Your task to perform on an android device: Go to privacy settings Image 0: 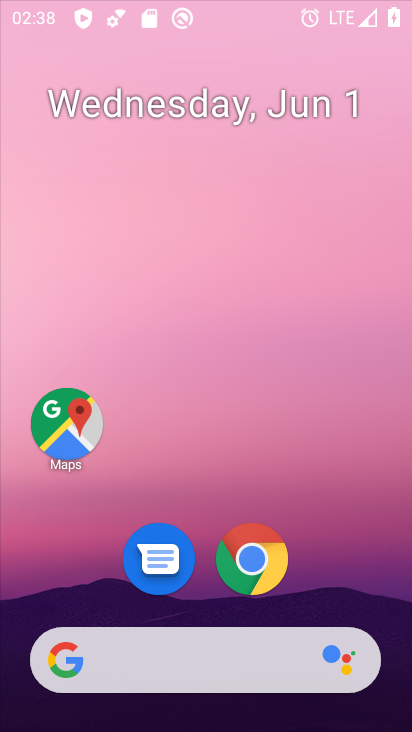
Step 0: press home button
Your task to perform on an android device: Go to privacy settings Image 1: 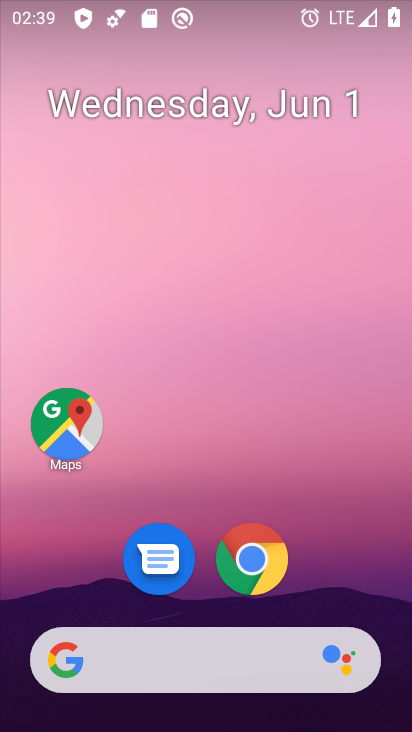
Step 1: drag from (334, 618) to (335, 139)
Your task to perform on an android device: Go to privacy settings Image 2: 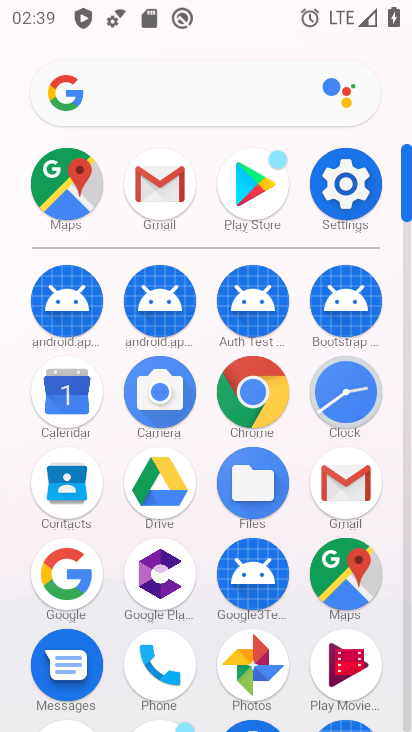
Step 2: click (344, 174)
Your task to perform on an android device: Go to privacy settings Image 3: 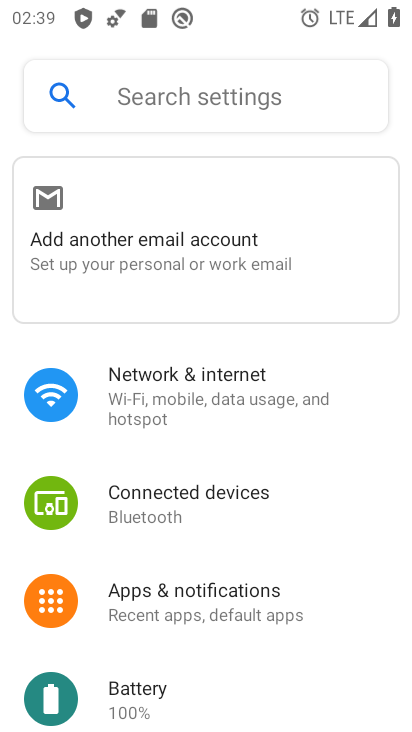
Step 3: drag from (232, 650) to (237, 434)
Your task to perform on an android device: Go to privacy settings Image 4: 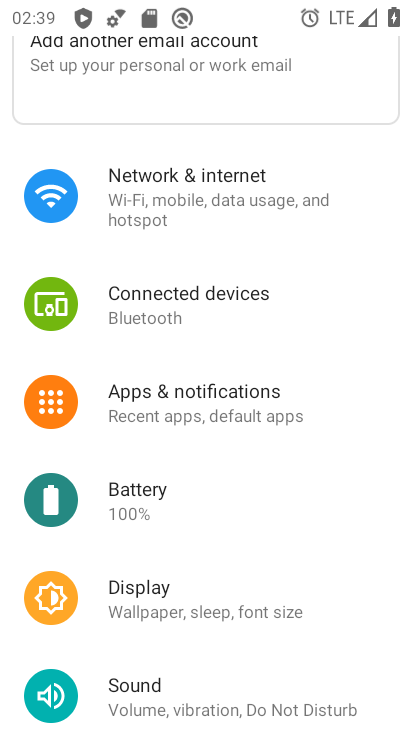
Step 4: drag from (290, 669) to (291, 339)
Your task to perform on an android device: Go to privacy settings Image 5: 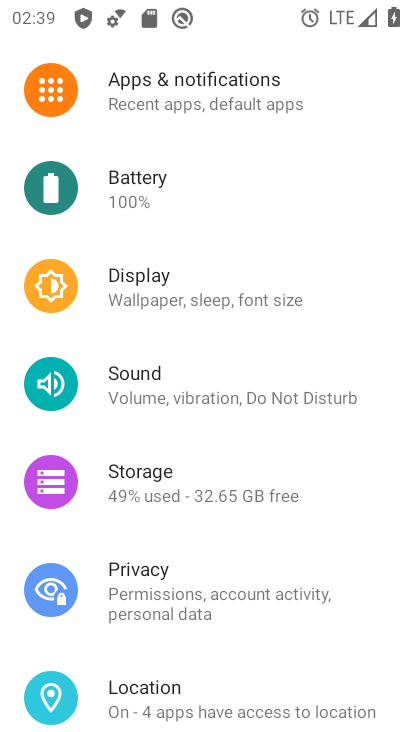
Step 5: click (144, 586)
Your task to perform on an android device: Go to privacy settings Image 6: 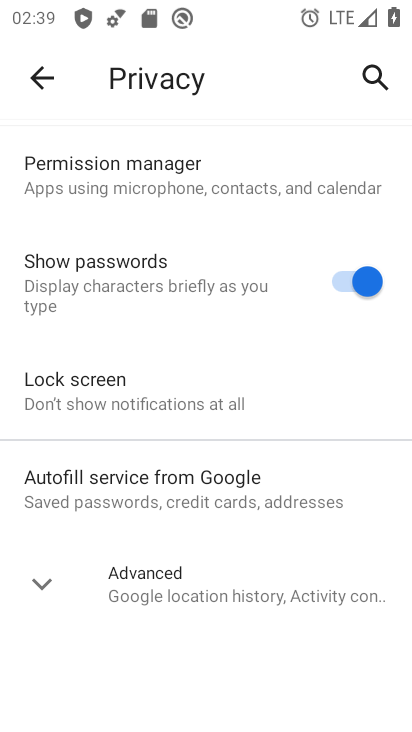
Step 6: task complete